Your task to perform on an android device: toggle airplane mode Image 0: 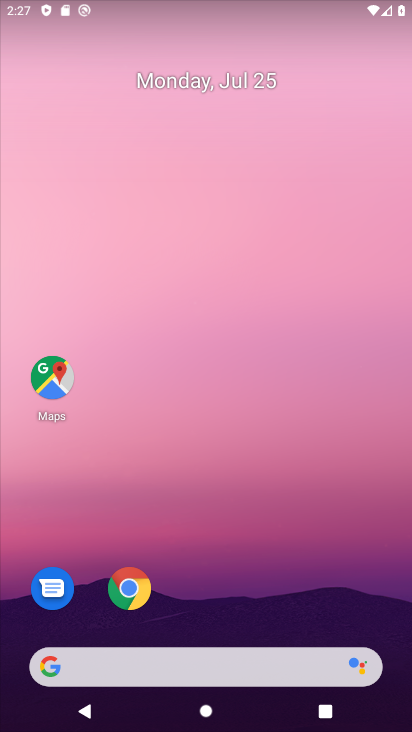
Step 0: drag from (333, 561) to (301, 14)
Your task to perform on an android device: toggle airplane mode Image 1: 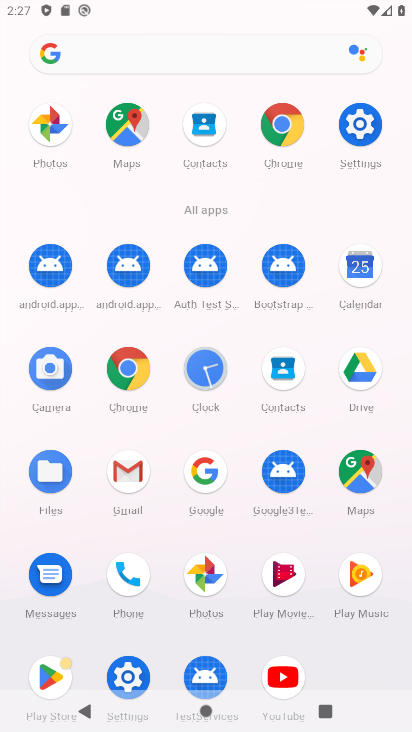
Step 1: click (365, 106)
Your task to perform on an android device: toggle airplane mode Image 2: 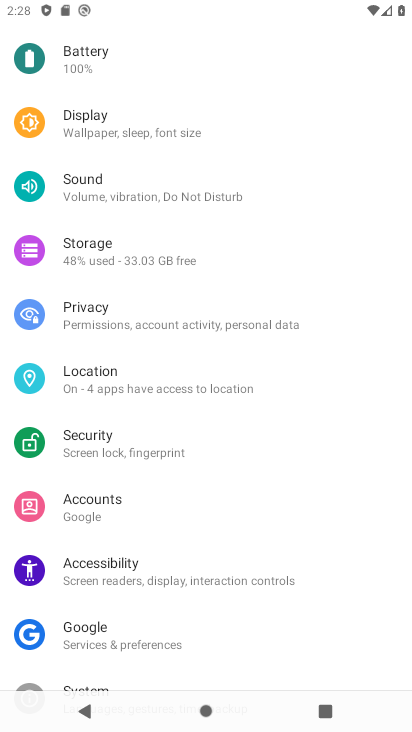
Step 2: drag from (165, 131) to (183, 536)
Your task to perform on an android device: toggle airplane mode Image 3: 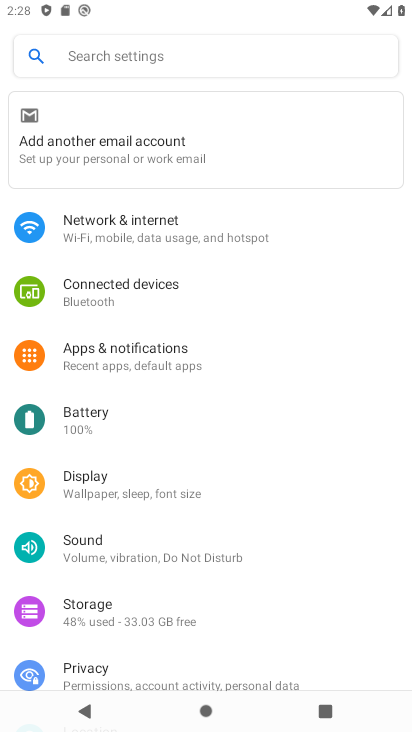
Step 3: click (161, 244)
Your task to perform on an android device: toggle airplane mode Image 4: 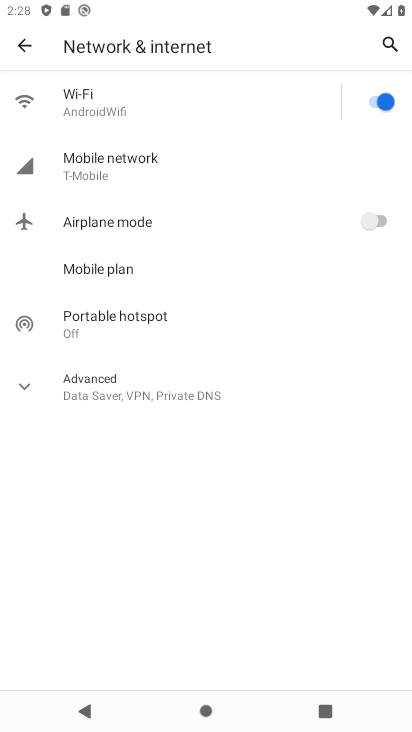
Step 4: click (385, 224)
Your task to perform on an android device: toggle airplane mode Image 5: 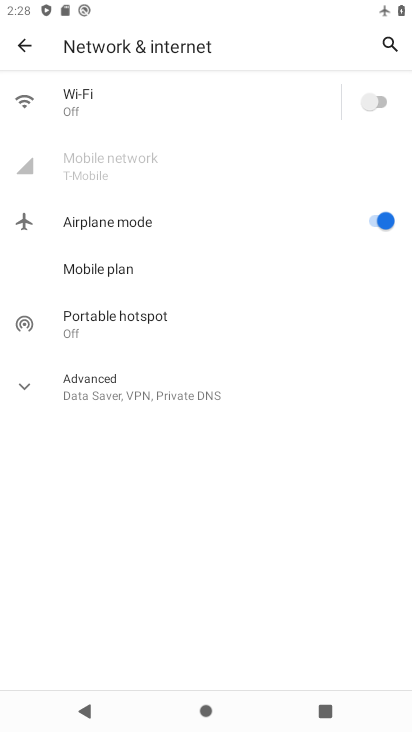
Step 5: task complete